Your task to perform on an android device: What's the weather today? Image 0: 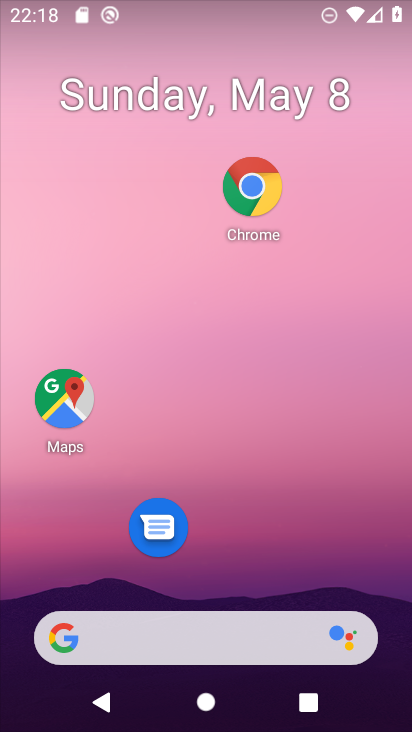
Step 0: drag from (291, 557) to (335, 282)
Your task to perform on an android device: What's the weather today? Image 1: 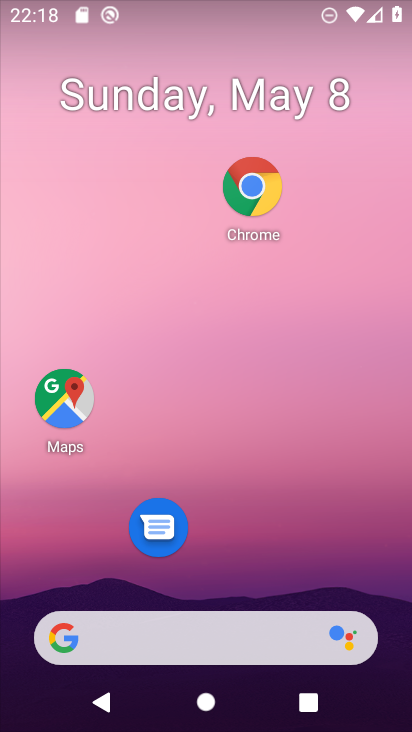
Step 1: drag from (316, 567) to (378, 187)
Your task to perform on an android device: What's the weather today? Image 2: 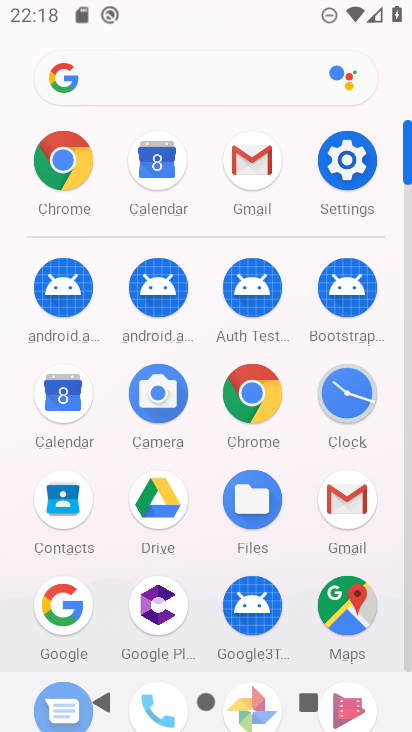
Step 2: click (245, 373)
Your task to perform on an android device: What's the weather today? Image 3: 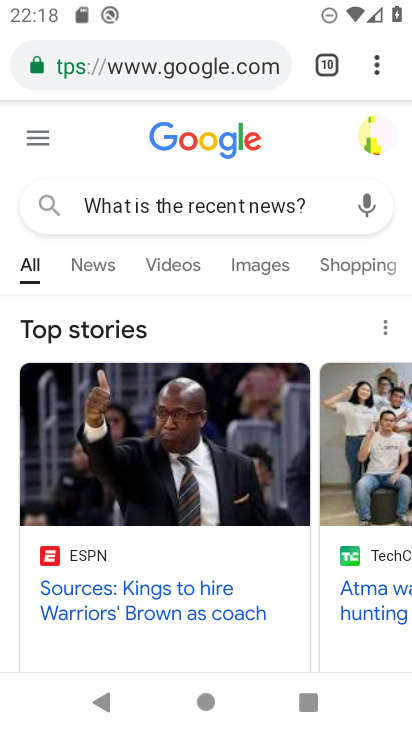
Step 3: click (364, 62)
Your task to perform on an android device: What's the weather today? Image 4: 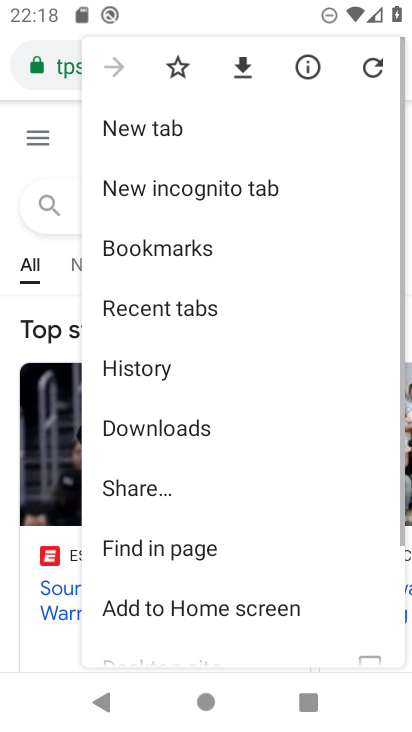
Step 4: click (169, 123)
Your task to perform on an android device: What's the weather today? Image 5: 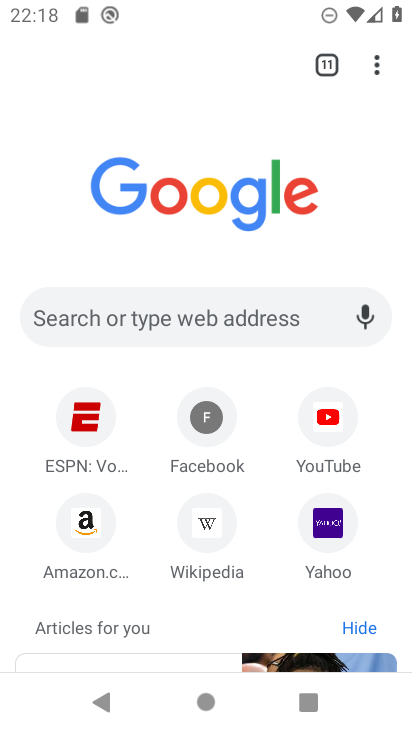
Step 5: click (170, 319)
Your task to perform on an android device: What's the weather today? Image 6: 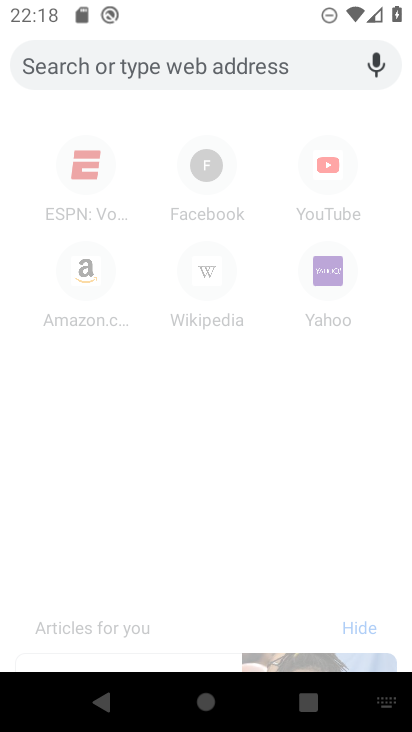
Step 6: type "What's the weather today?"
Your task to perform on an android device: What's the weather today? Image 7: 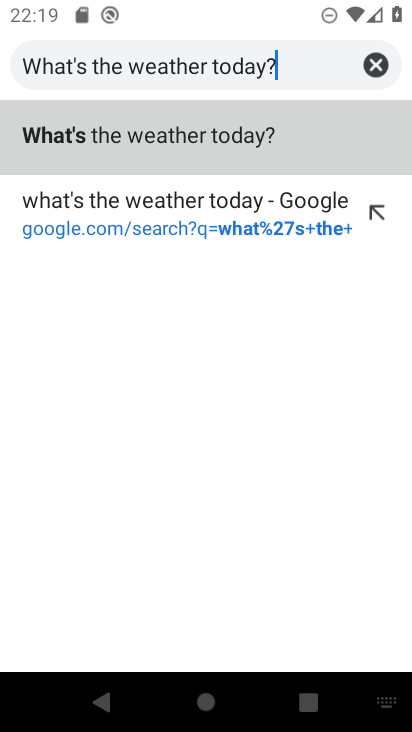
Step 7: click (147, 121)
Your task to perform on an android device: What's the weather today? Image 8: 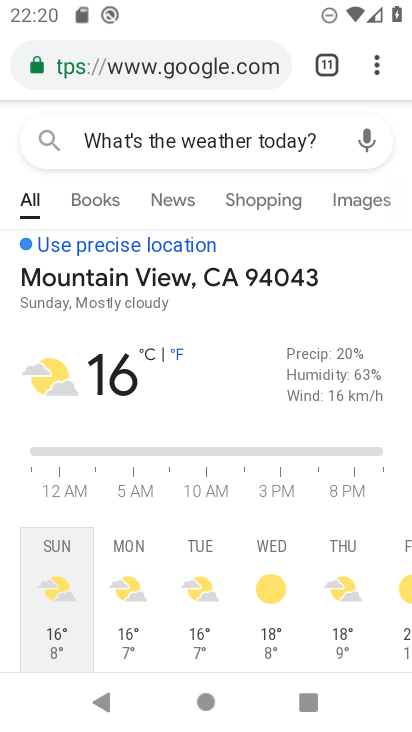
Step 8: task complete